Your task to perform on an android device: toggle javascript in the chrome app Image 0: 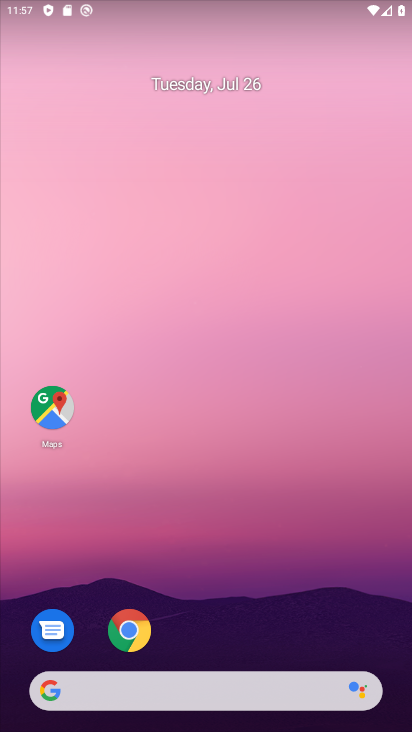
Step 0: click (132, 624)
Your task to perform on an android device: toggle javascript in the chrome app Image 1: 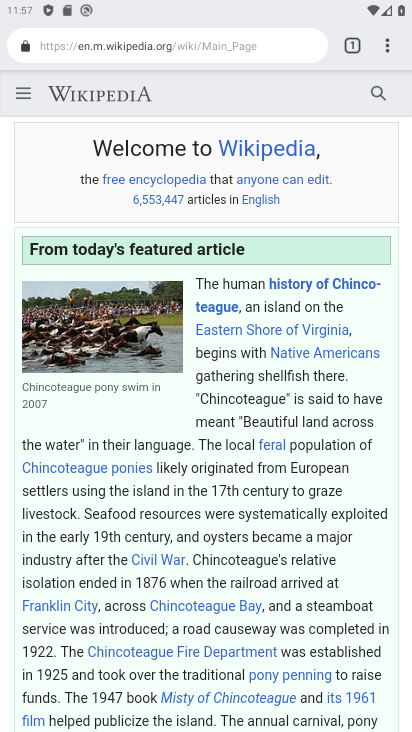
Step 1: click (384, 43)
Your task to perform on an android device: toggle javascript in the chrome app Image 2: 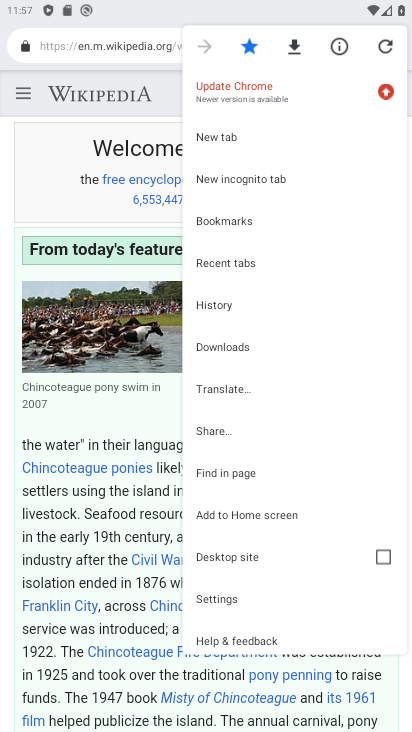
Step 2: click (232, 598)
Your task to perform on an android device: toggle javascript in the chrome app Image 3: 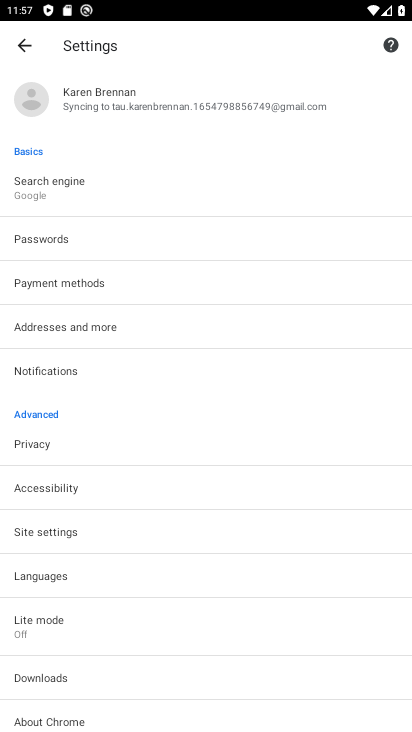
Step 3: click (64, 534)
Your task to perform on an android device: toggle javascript in the chrome app Image 4: 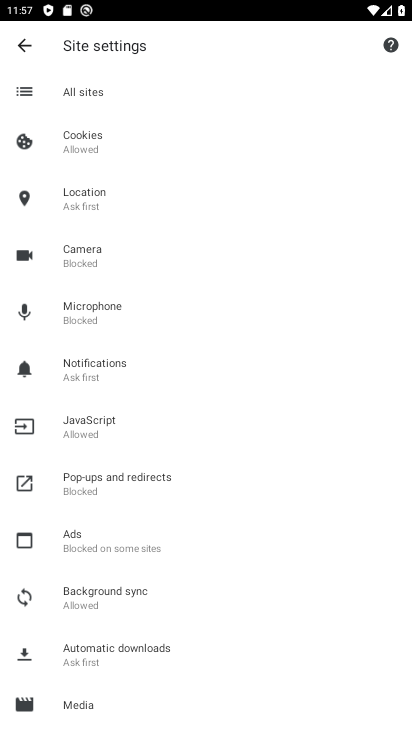
Step 4: click (101, 426)
Your task to perform on an android device: toggle javascript in the chrome app Image 5: 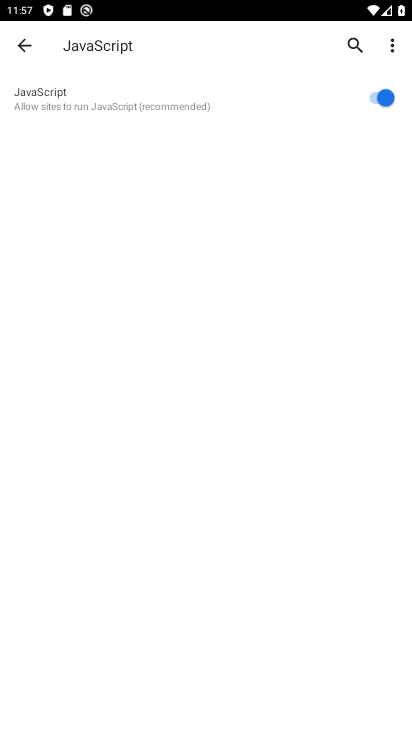
Step 5: click (384, 96)
Your task to perform on an android device: toggle javascript in the chrome app Image 6: 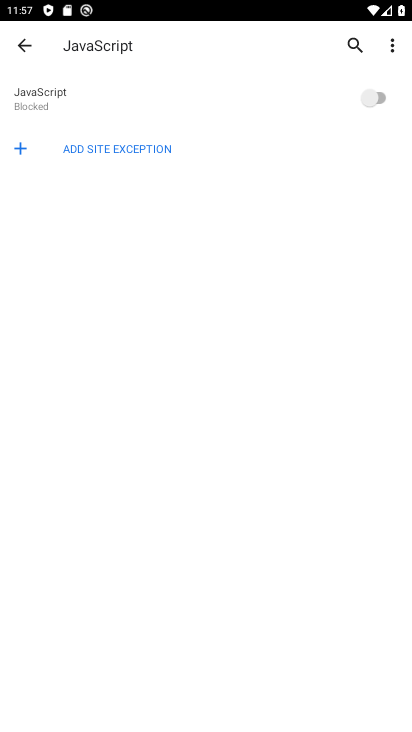
Step 6: task complete